Your task to perform on an android device: turn on showing notifications on the lock screen Image 0: 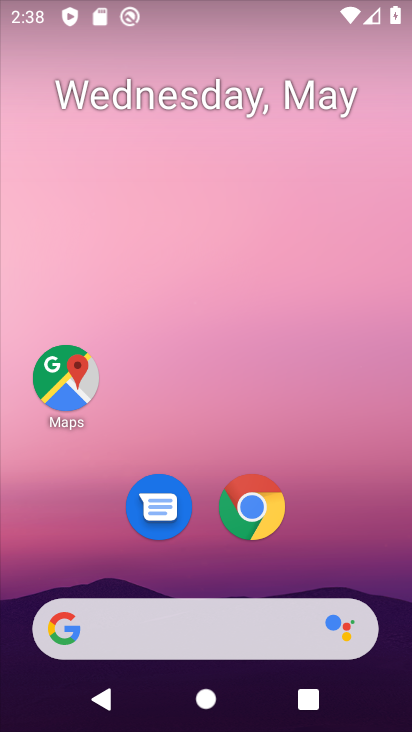
Step 0: drag from (229, 528) to (226, 106)
Your task to perform on an android device: turn on showing notifications on the lock screen Image 1: 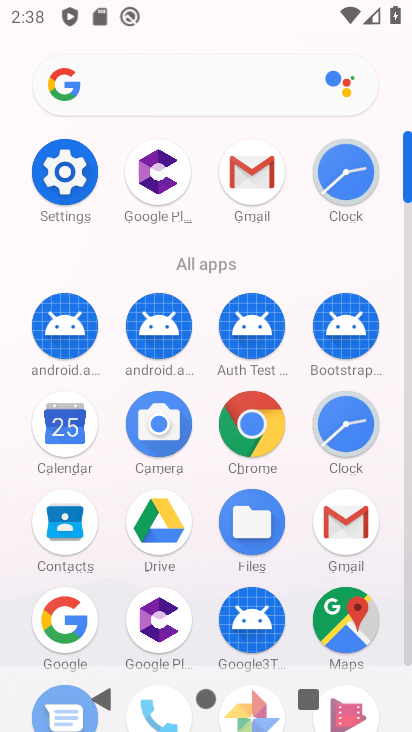
Step 1: click (72, 186)
Your task to perform on an android device: turn on showing notifications on the lock screen Image 2: 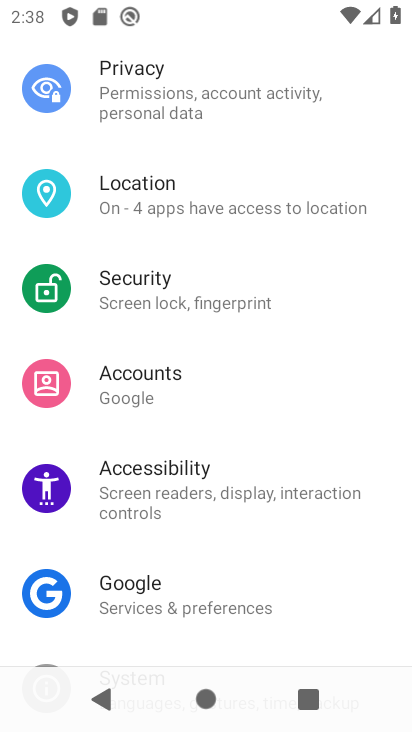
Step 2: drag from (206, 171) to (276, 692)
Your task to perform on an android device: turn on showing notifications on the lock screen Image 3: 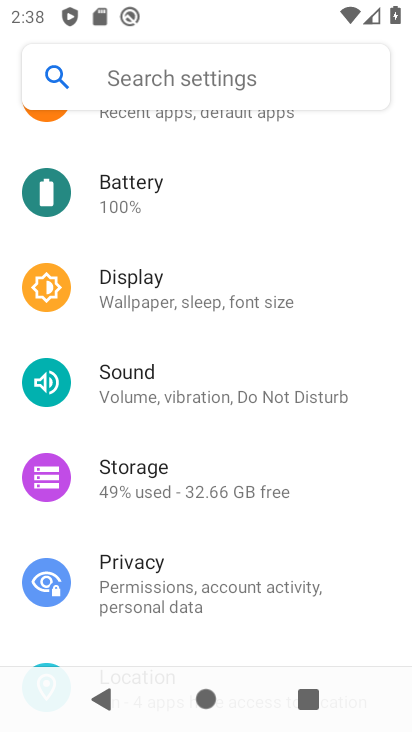
Step 3: drag from (204, 180) to (292, 567)
Your task to perform on an android device: turn on showing notifications on the lock screen Image 4: 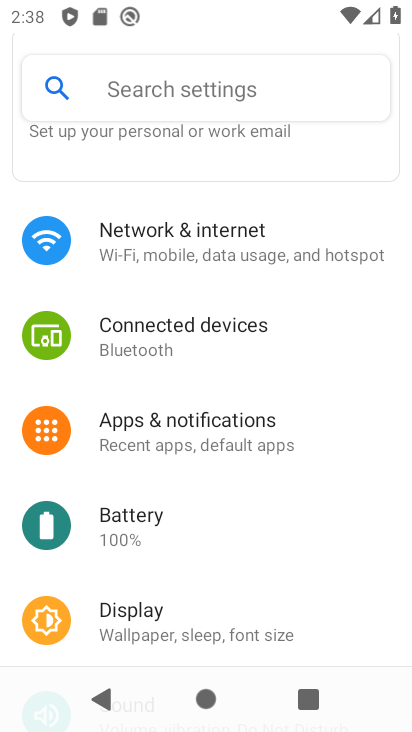
Step 4: click (183, 417)
Your task to perform on an android device: turn on showing notifications on the lock screen Image 5: 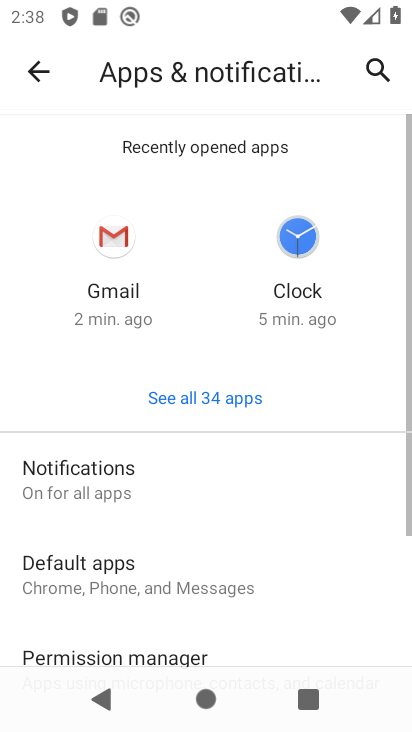
Step 5: click (127, 485)
Your task to perform on an android device: turn on showing notifications on the lock screen Image 6: 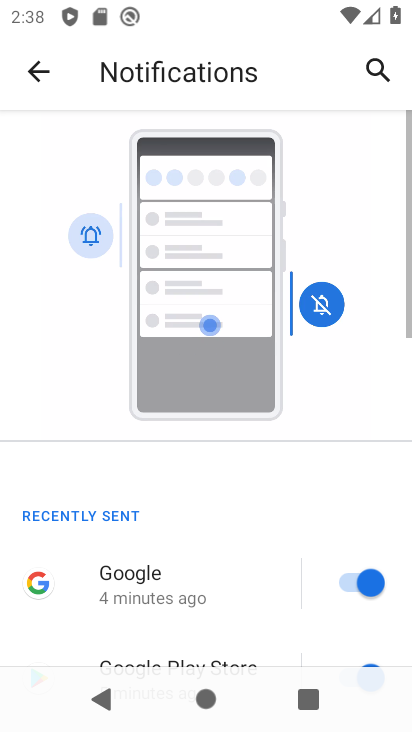
Step 6: drag from (256, 632) to (282, 128)
Your task to perform on an android device: turn on showing notifications on the lock screen Image 7: 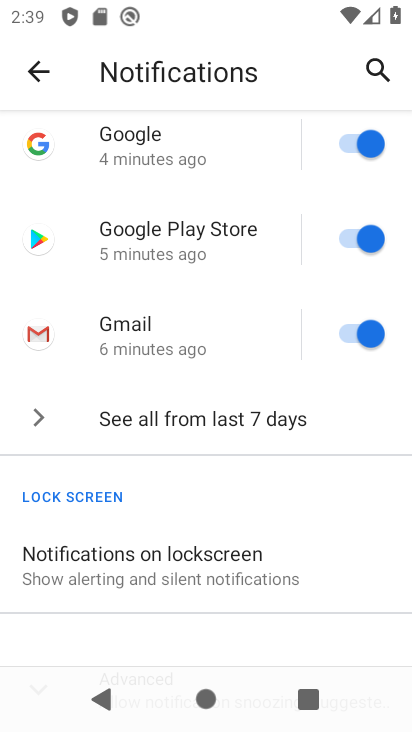
Step 7: click (140, 572)
Your task to perform on an android device: turn on showing notifications on the lock screen Image 8: 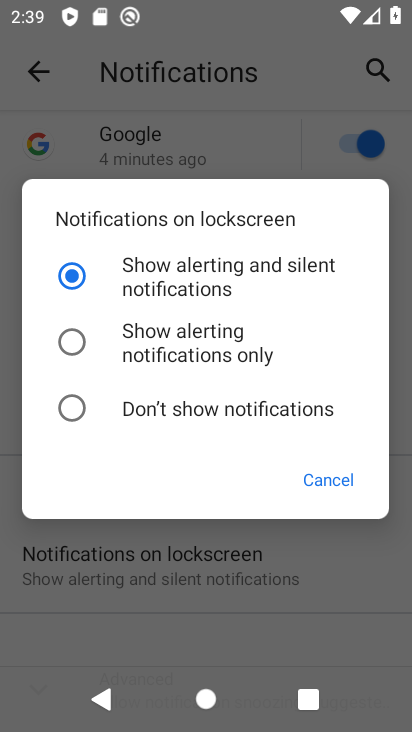
Step 8: task complete